Your task to perform on an android device: delete the emails in spam in the gmail app Image 0: 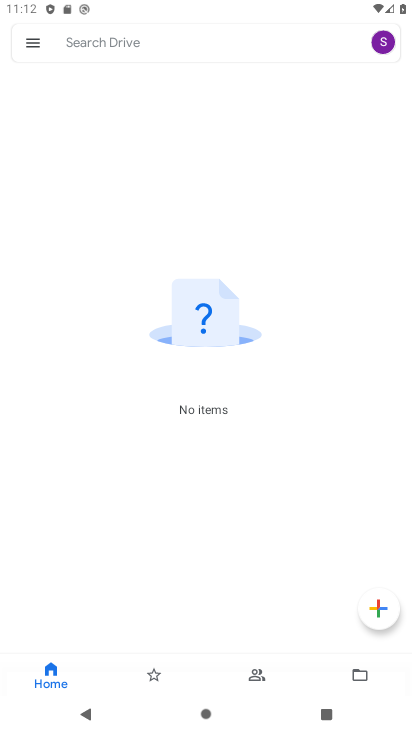
Step 0: press home button
Your task to perform on an android device: delete the emails in spam in the gmail app Image 1: 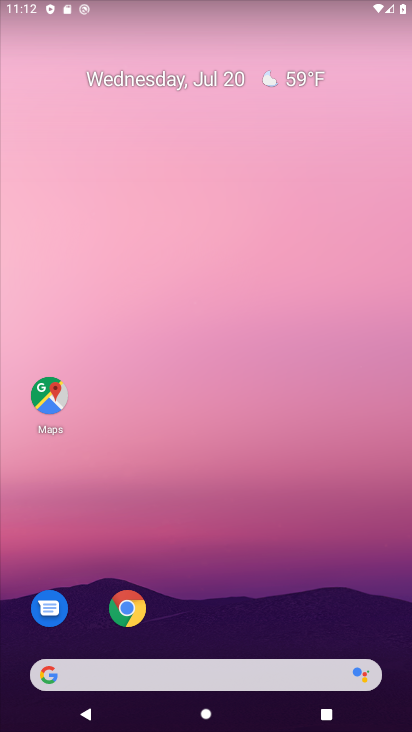
Step 1: drag from (343, 590) to (406, 345)
Your task to perform on an android device: delete the emails in spam in the gmail app Image 2: 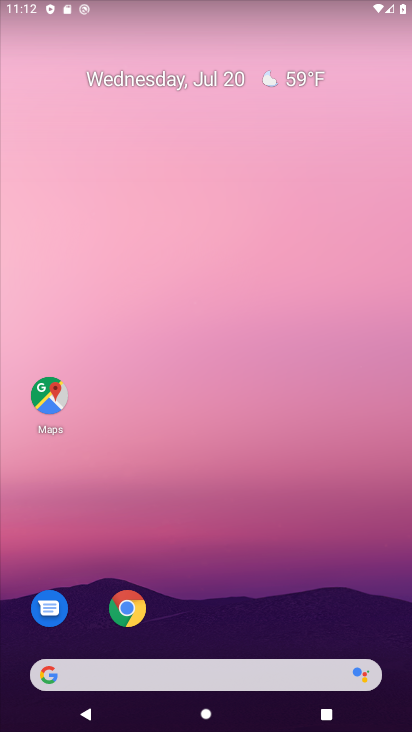
Step 2: drag from (334, 623) to (361, 1)
Your task to perform on an android device: delete the emails in spam in the gmail app Image 3: 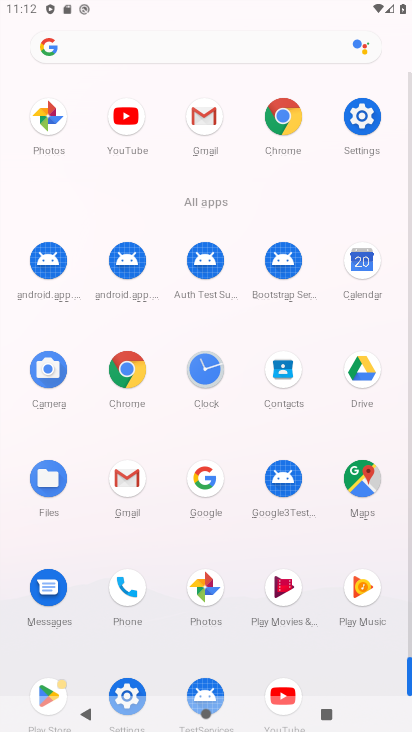
Step 3: click (127, 483)
Your task to perform on an android device: delete the emails in spam in the gmail app Image 4: 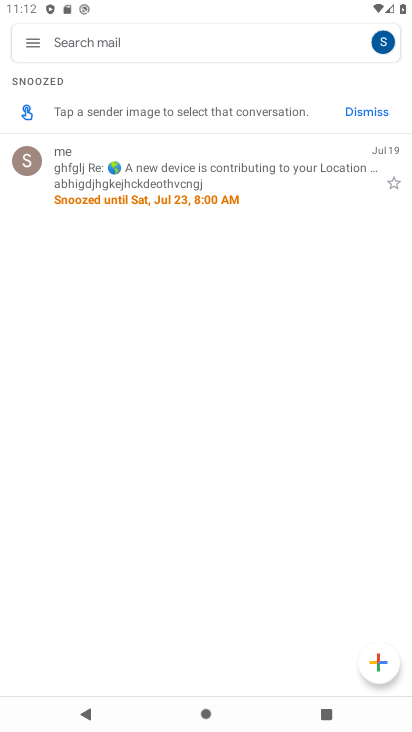
Step 4: click (40, 48)
Your task to perform on an android device: delete the emails in spam in the gmail app Image 5: 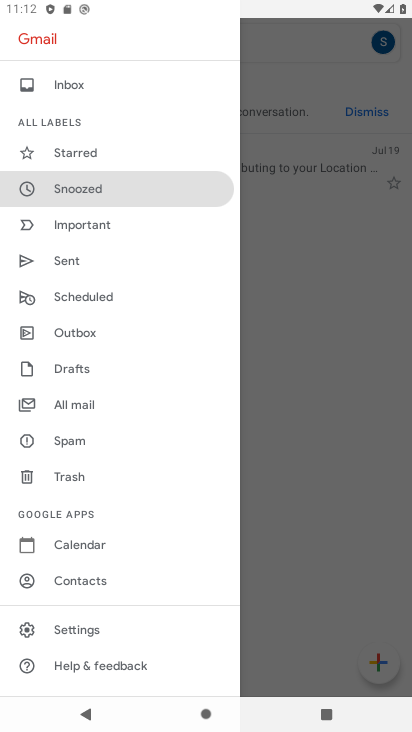
Step 5: click (93, 444)
Your task to perform on an android device: delete the emails in spam in the gmail app Image 6: 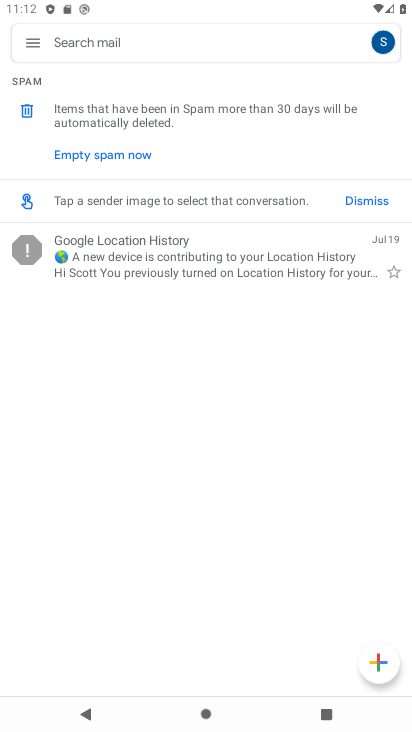
Step 6: click (275, 257)
Your task to perform on an android device: delete the emails in spam in the gmail app Image 7: 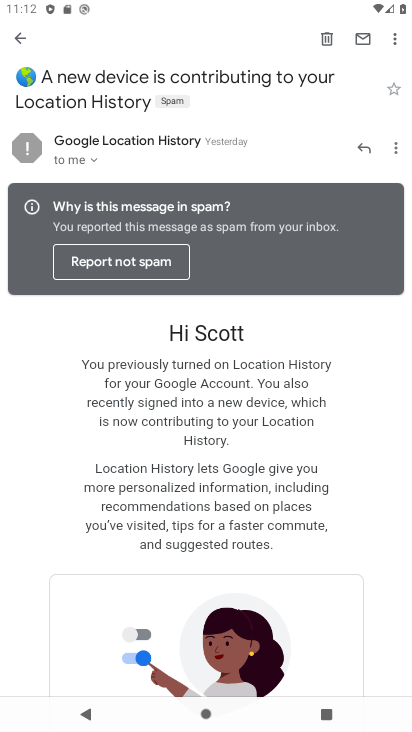
Step 7: click (326, 41)
Your task to perform on an android device: delete the emails in spam in the gmail app Image 8: 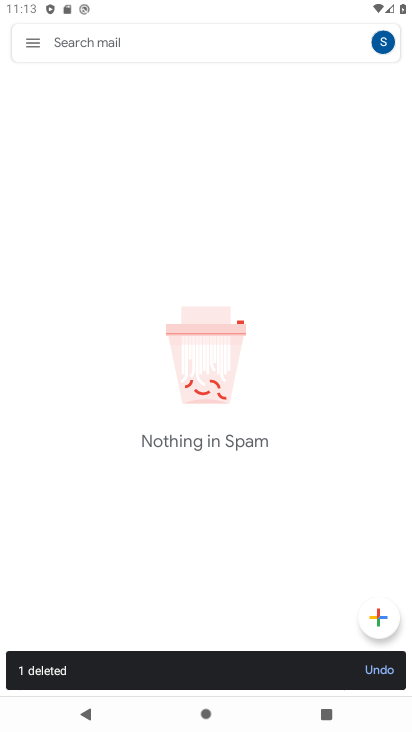
Step 8: task complete